Your task to perform on an android device: Open accessibility settings Image 0: 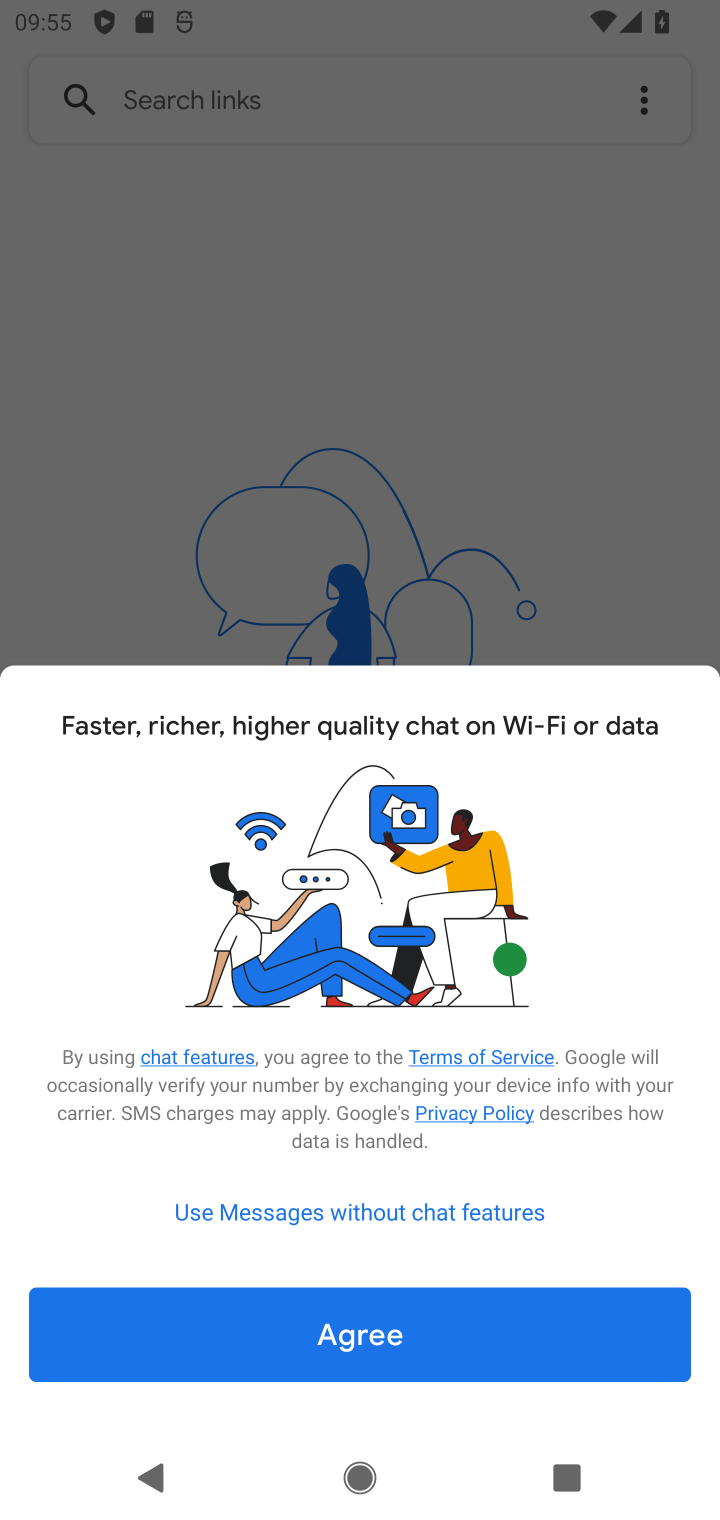
Step 0: press home button
Your task to perform on an android device: Open accessibility settings Image 1: 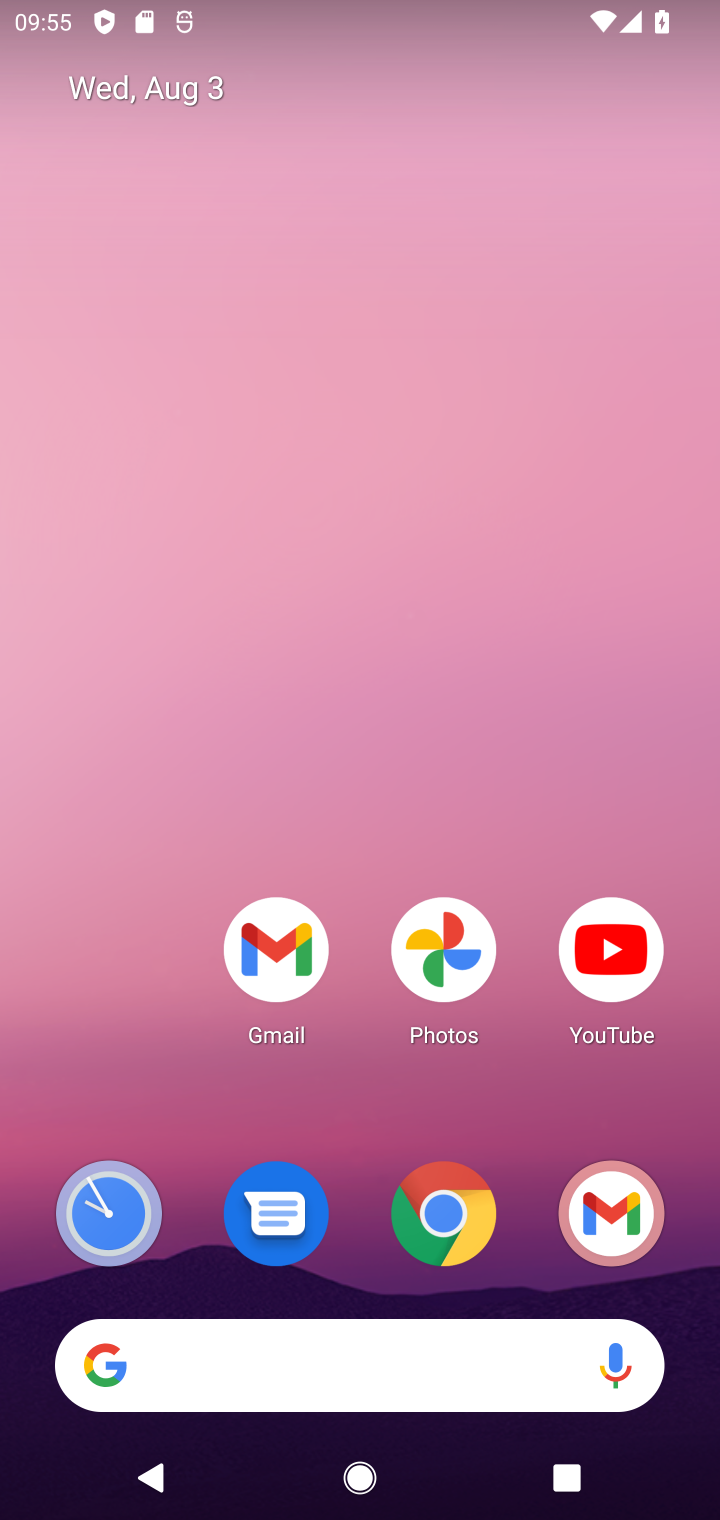
Step 1: drag from (298, 1134) to (307, 82)
Your task to perform on an android device: Open accessibility settings Image 2: 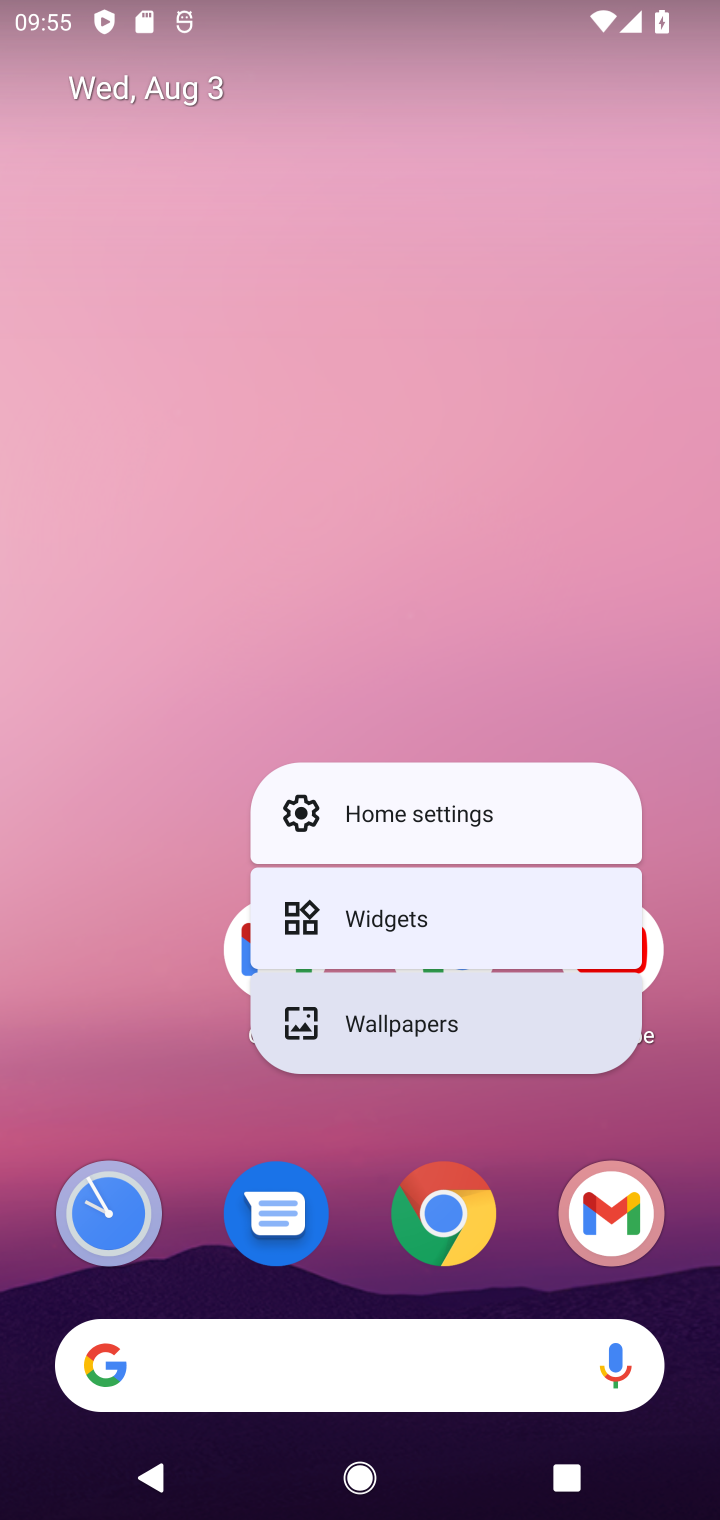
Step 2: click (288, 161)
Your task to perform on an android device: Open accessibility settings Image 3: 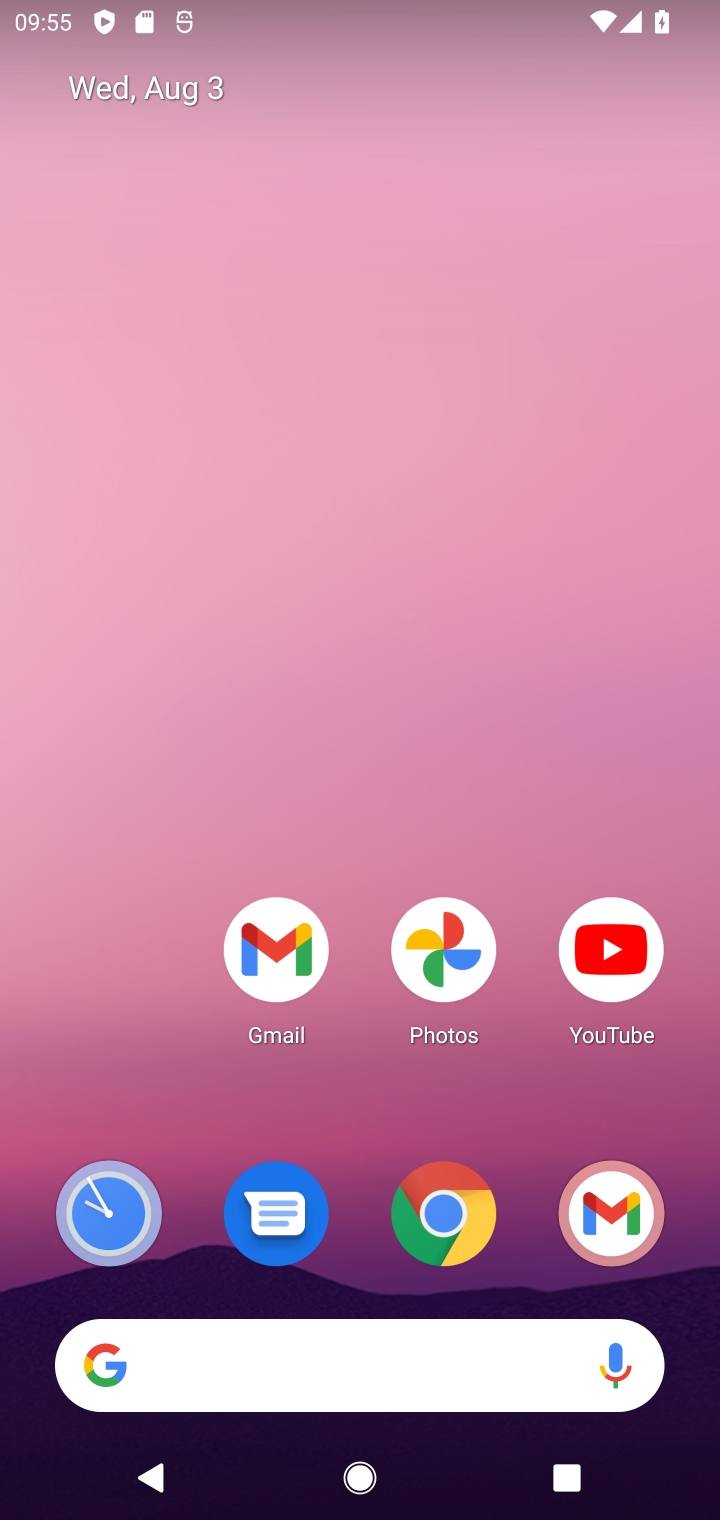
Step 3: drag from (160, 961) to (170, 390)
Your task to perform on an android device: Open accessibility settings Image 4: 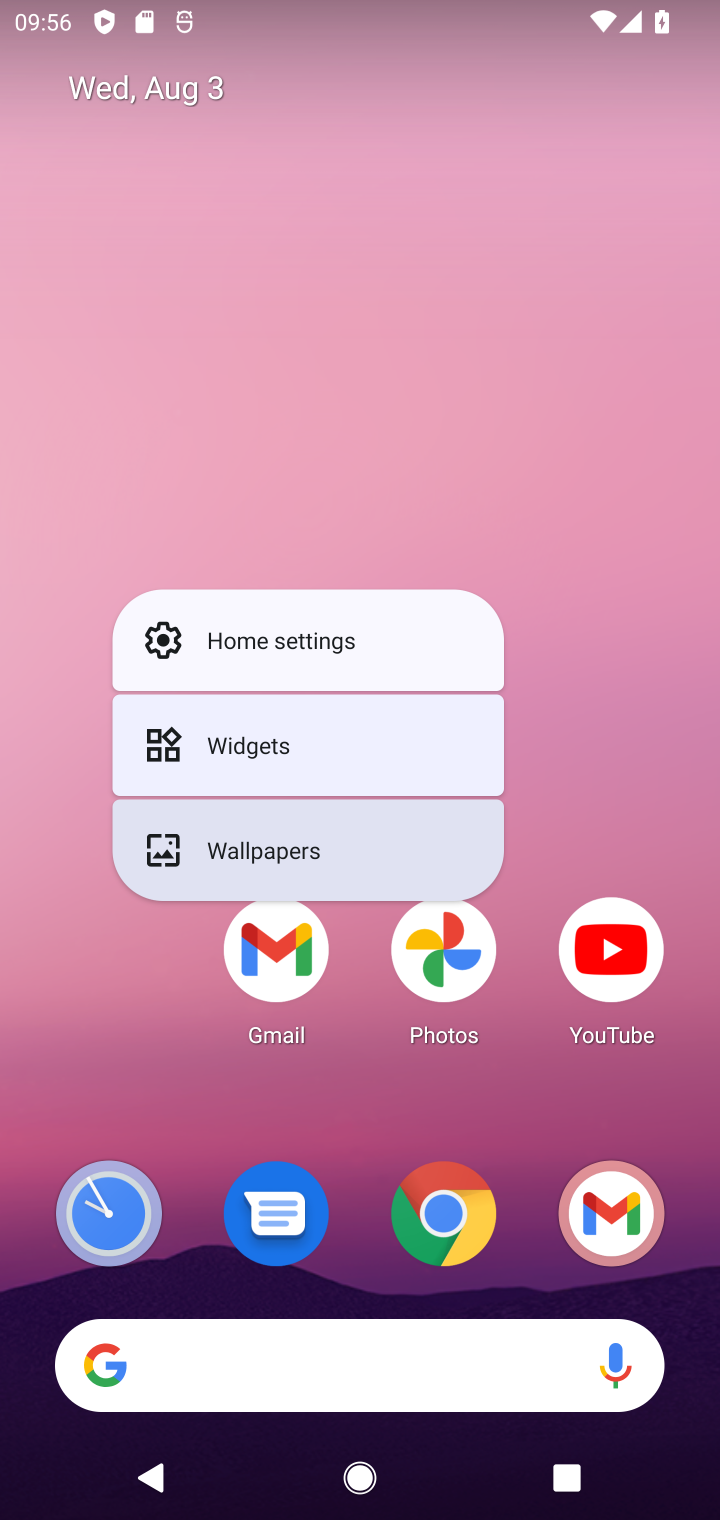
Step 4: click (637, 685)
Your task to perform on an android device: Open accessibility settings Image 5: 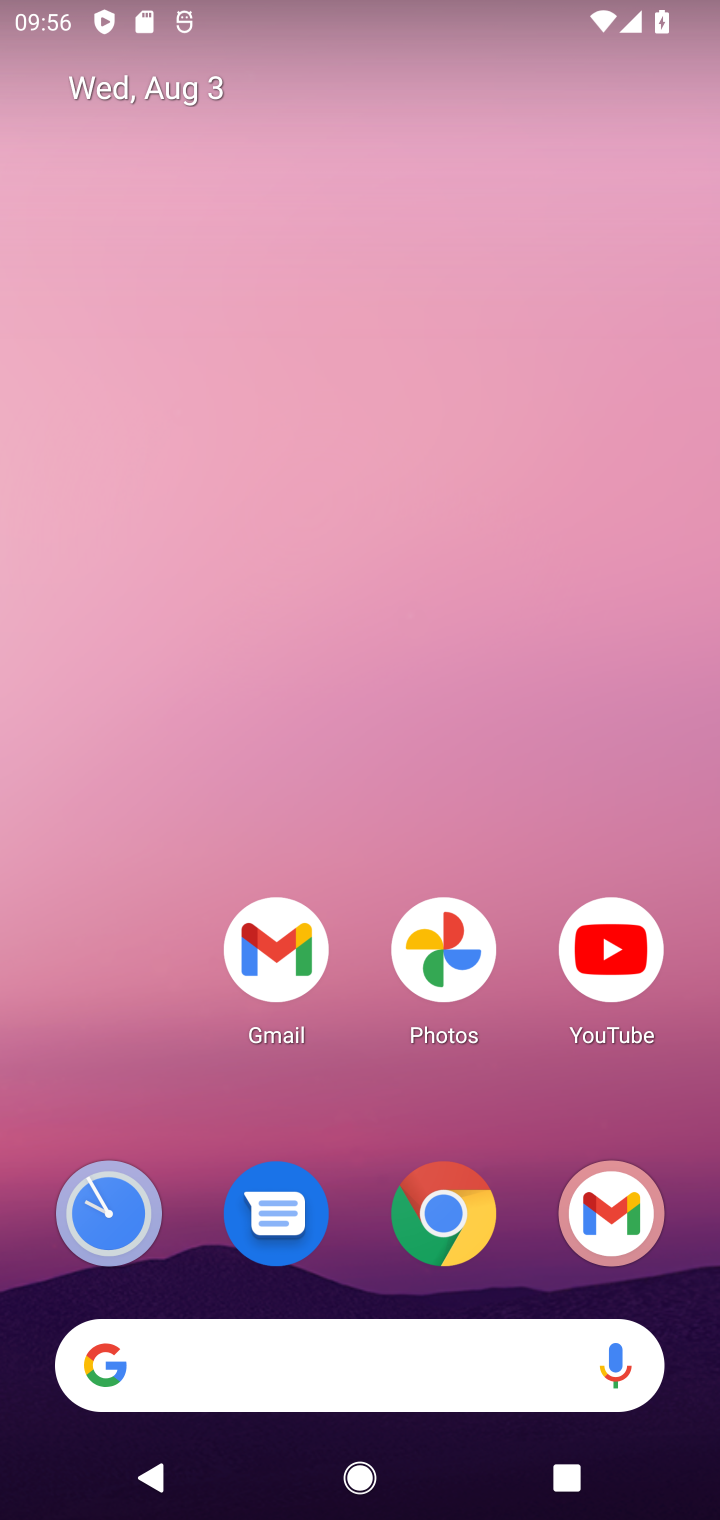
Step 5: drag from (315, 1304) to (390, 126)
Your task to perform on an android device: Open accessibility settings Image 6: 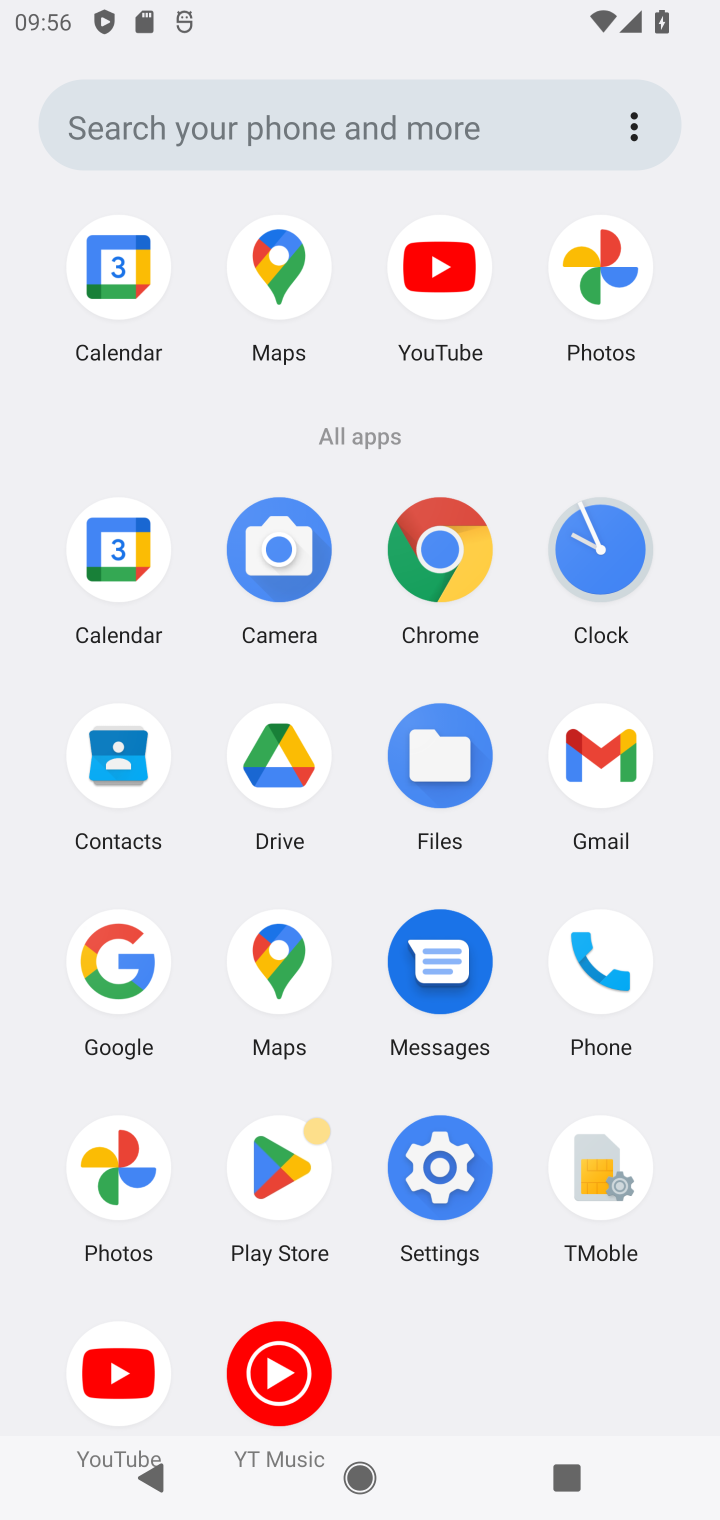
Step 6: click (437, 1161)
Your task to perform on an android device: Open accessibility settings Image 7: 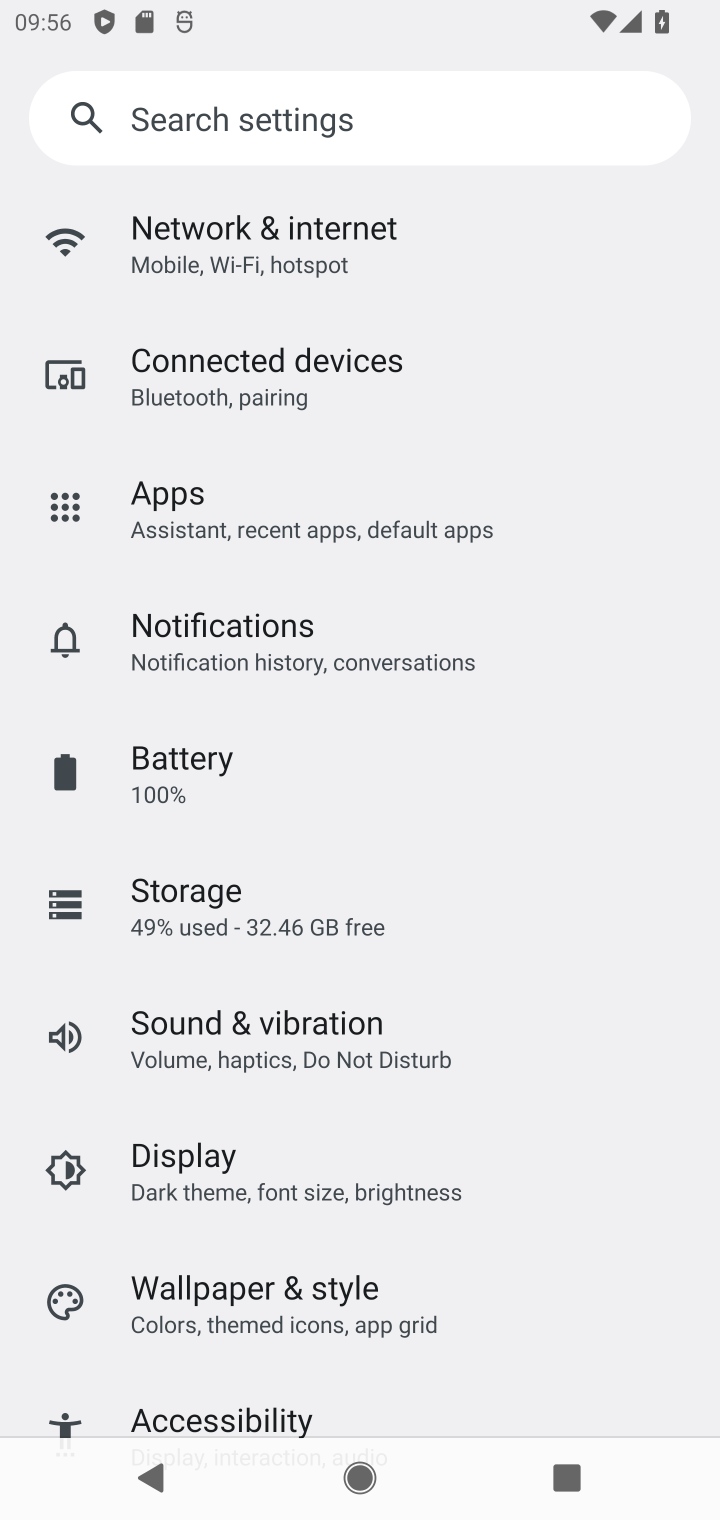
Step 7: click (192, 1409)
Your task to perform on an android device: Open accessibility settings Image 8: 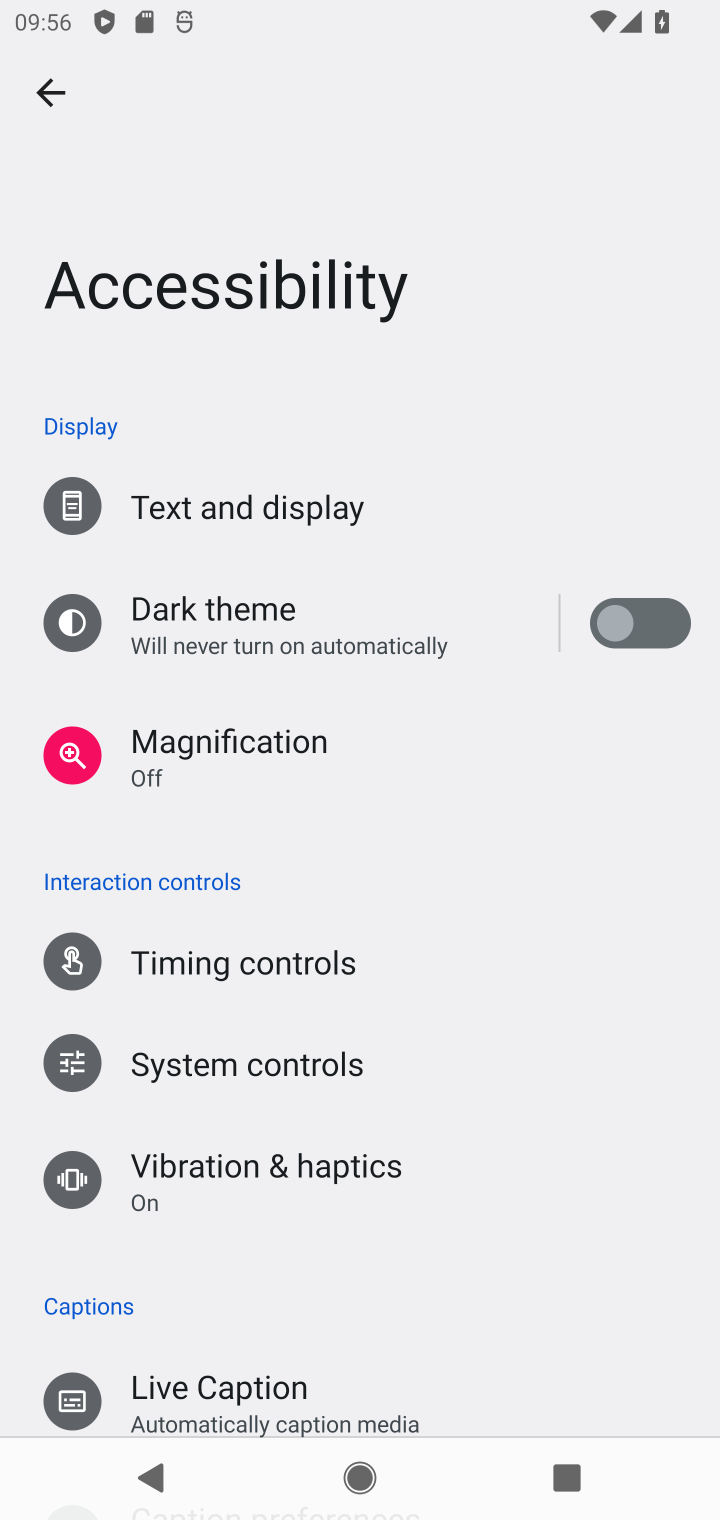
Step 8: task complete